Your task to perform on an android device: Open Youtube and go to "Your channel" Image 0: 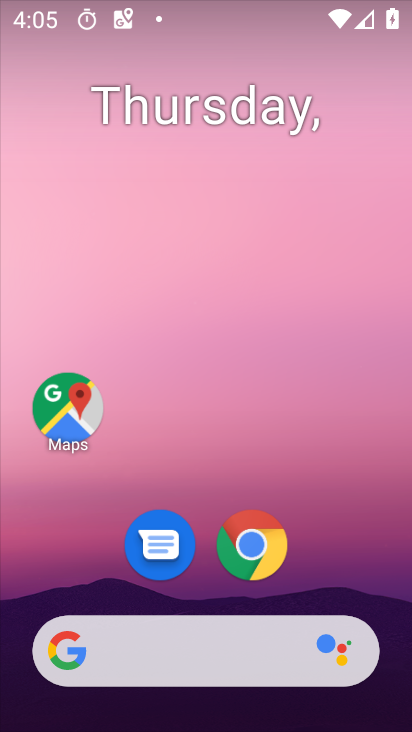
Step 0: drag from (229, 723) to (229, 129)
Your task to perform on an android device: Open Youtube and go to "Your channel" Image 1: 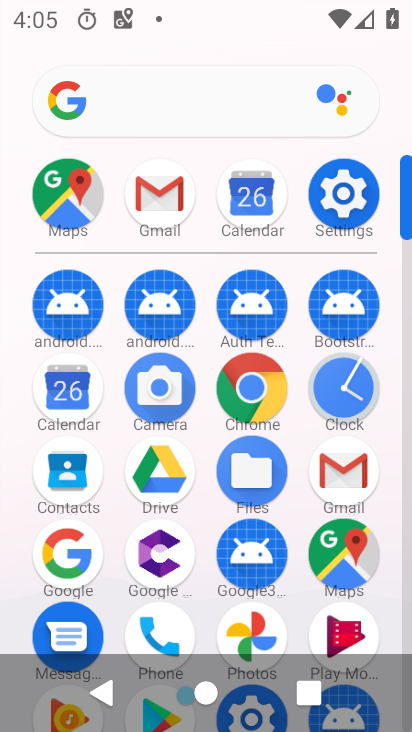
Step 1: drag from (369, 590) to (360, 225)
Your task to perform on an android device: Open Youtube and go to "Your channel" Image 2: 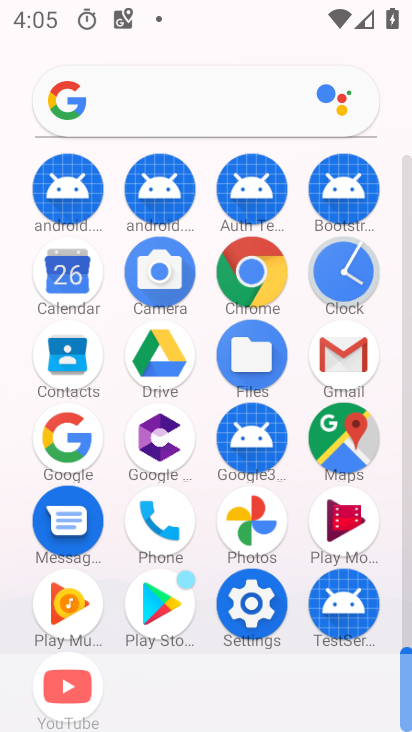
Step 2: click (68, 686)
Your task to perform on an android device: Open Youtube and go to "Your channel" Image 3: 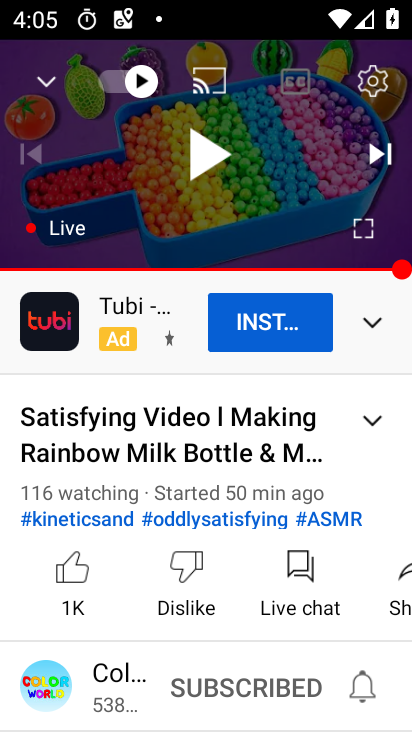
Step 3: click (40, 80)
Your task to perform on an android device: Open Youtube and go to "Your channel" Image 4: 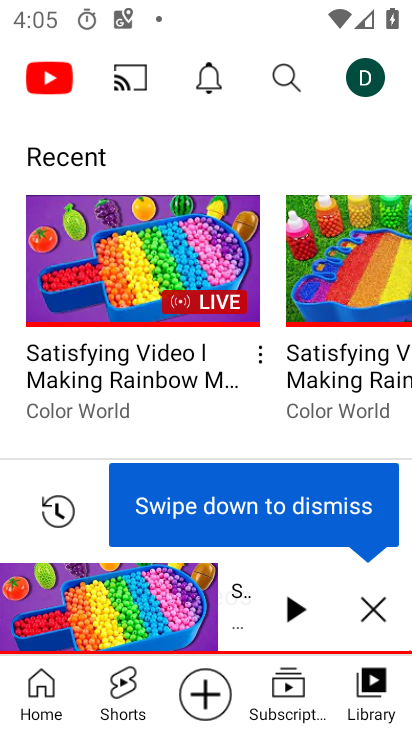
Step 4: click (368, 73)
Your task to perform on an android device: Open Youtube and go to "Your channel" Image 5: 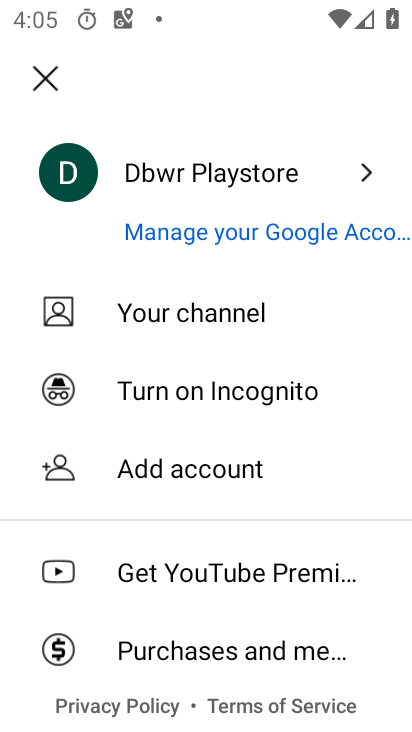
Step 5: click (123, 312)
Your task to perform on an android device: Open Youtube and go to "Your channel" Image 6: 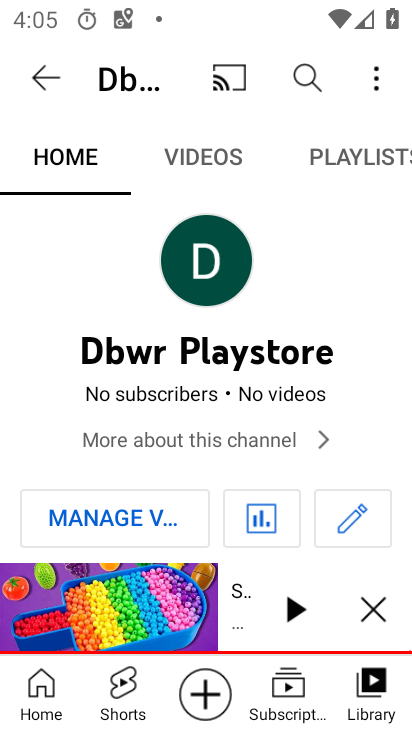
Step 6: task complete